Your task to perform on an android device: Go to settings Image 0: 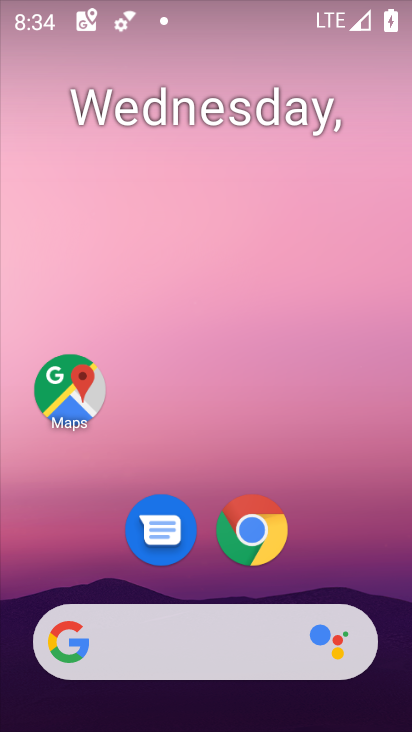
Step 0: click (330, 451)
Your task to perform on an android device: Go to settings Image 1: 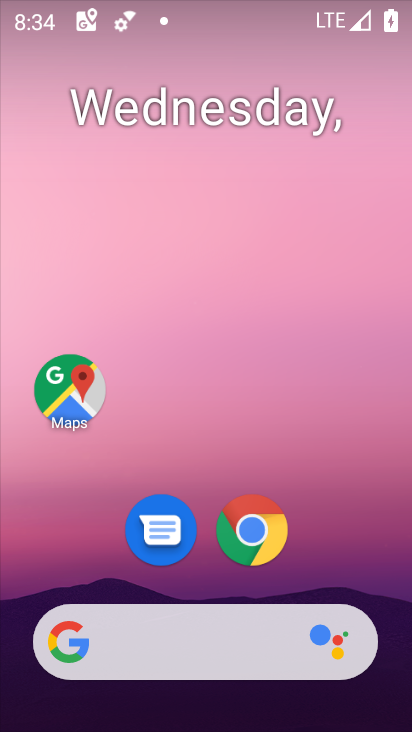
Step 1: drag from (384, 628) to (341, 106)
Your task to perform on an android device: Go to settings Image 2: 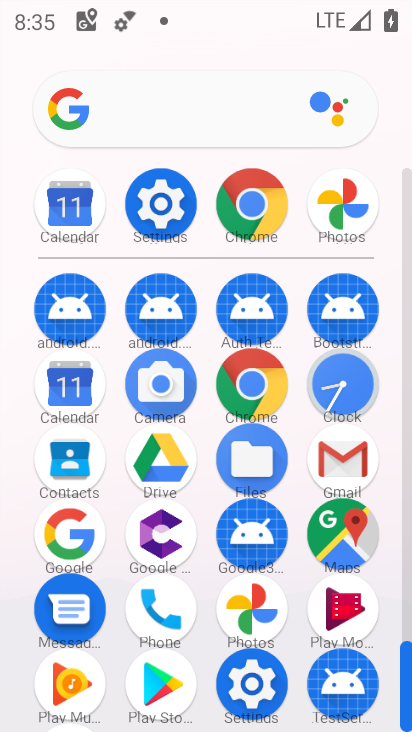
Step 2: click (145, 217)
Your task to perform on an android device: Go to settings Image 3: 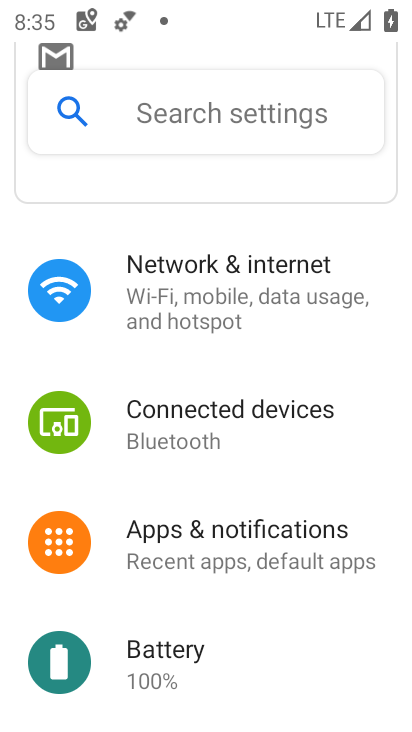
Step 3: task complete